Your task to perform on an android device: Go to Reddit.com Image 0: 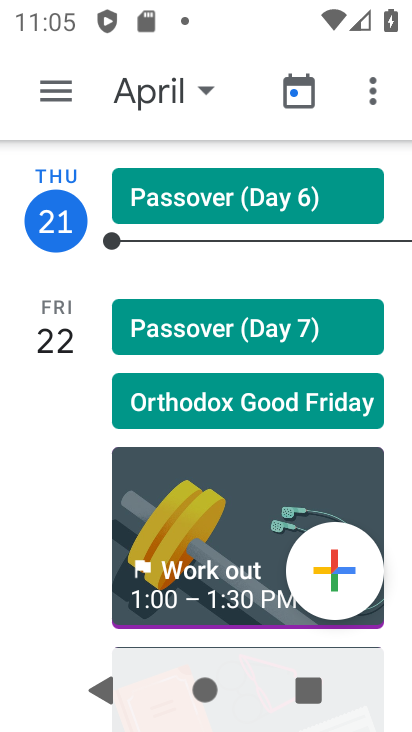
Step 0: press home button
Your task to perform on an android device: Go to Reddit.com Image 1: 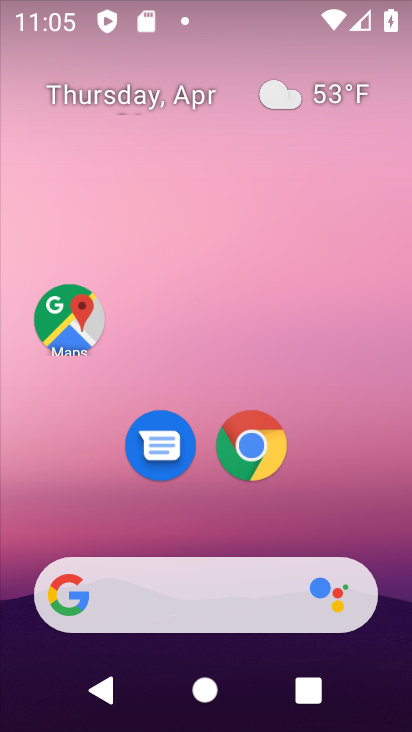
Step 1: drag from (149, 605) to (317, 70)
Your task to perform on an android device: Go to Reddit.com Image 2: 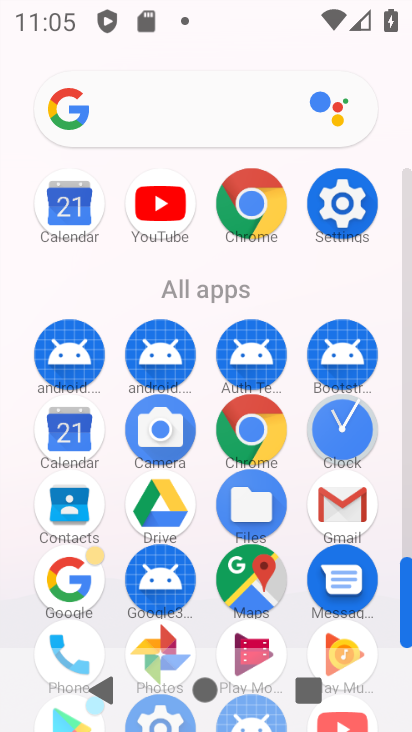
Step 2: click (263, 204)
Your task to perform on an android device: Go to Reddit.com Image 3: 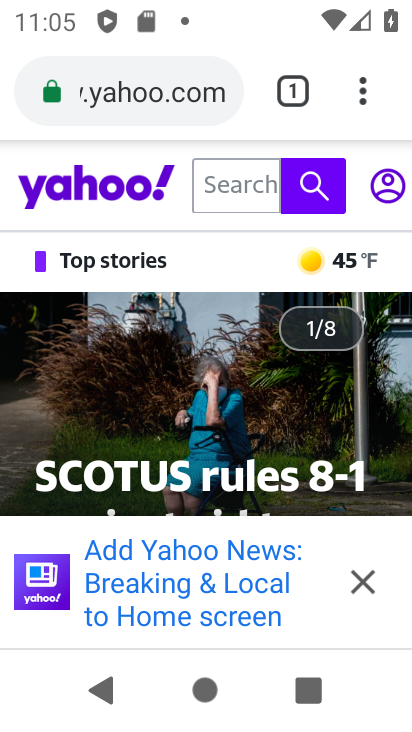
Step 3: click (350, 107)
Your task to perform on an android device: Go to Reddit.com Image 4: 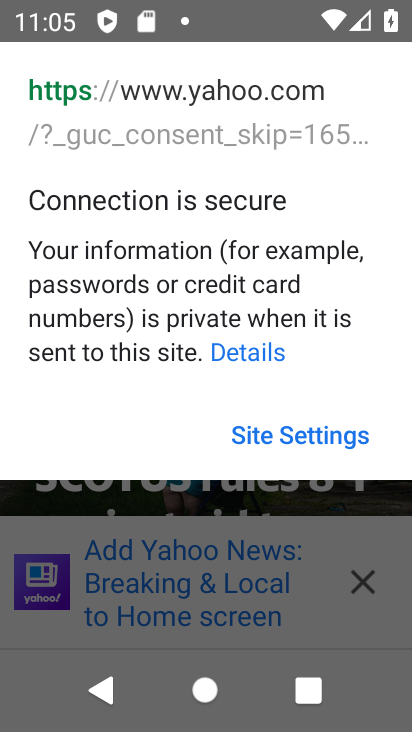
Step 4: press back button
Your task to perform on an android device: Go to Reddit.com Image 5: 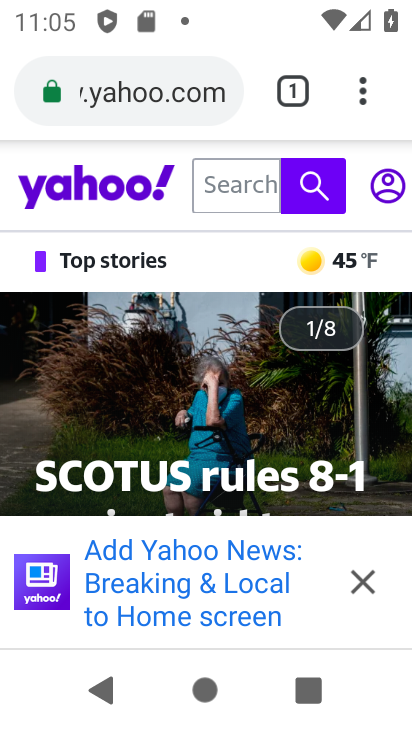
Step 5: click (361, 113)
Your task to perform on an android device: Go to Reddit.com Image 6: 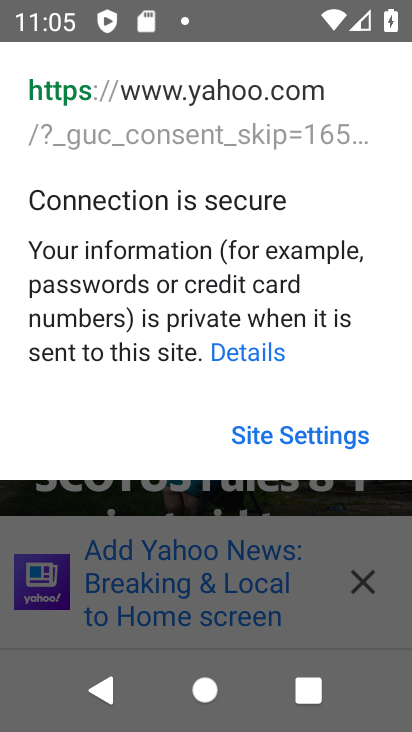
Step 6: press back button
Your task to perform on an android device: Go to Reddit.com Image 7: 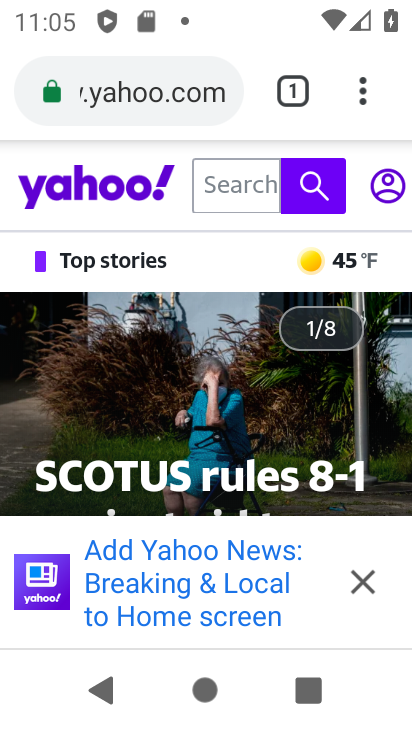
Step 7: click (353, 102)
Your task to perform on an android device: Go to Reddit.com Image 8: 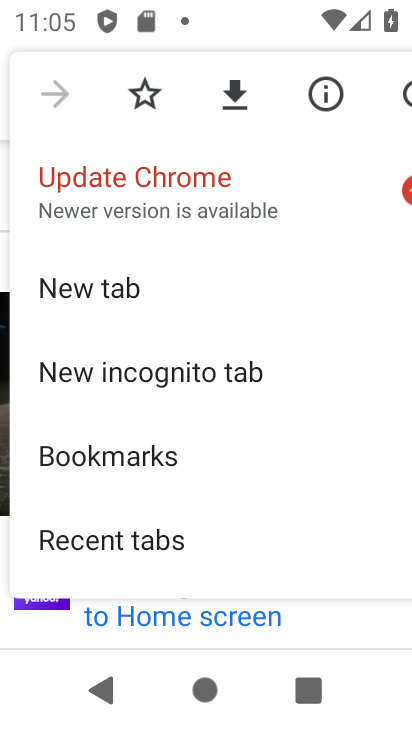
Step 8: click (135, 284)
Your task to perform on an android device: Go to Reddit.com Image 9: 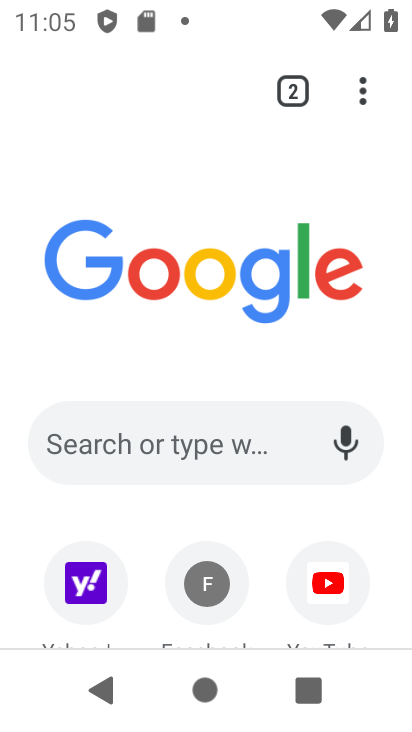
Step 9: drag from (139, 483) to (302, 116)
Your task to perform on an android device: Go to Reddit.com Image 10: 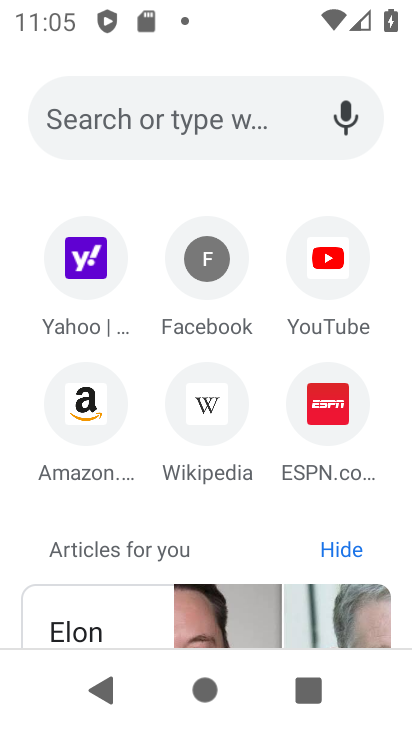
Step 10: click (160, 116)
Your task to perform on an android device: Go to Reddit.com Image 11: 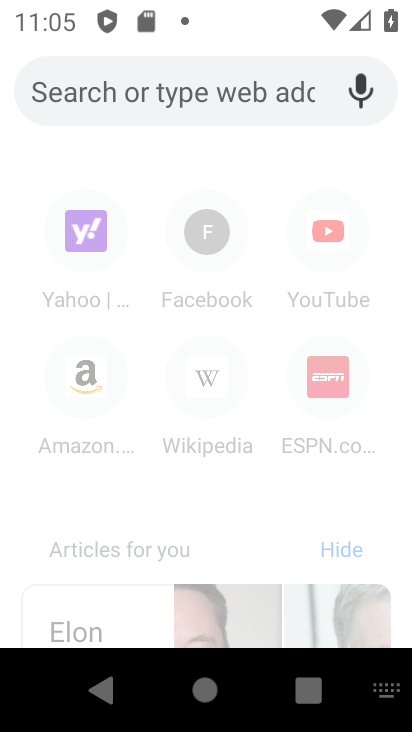
Step 11: type "reddit.com"
Your task to perform on an android device: Go to Reddit.com Image 12: 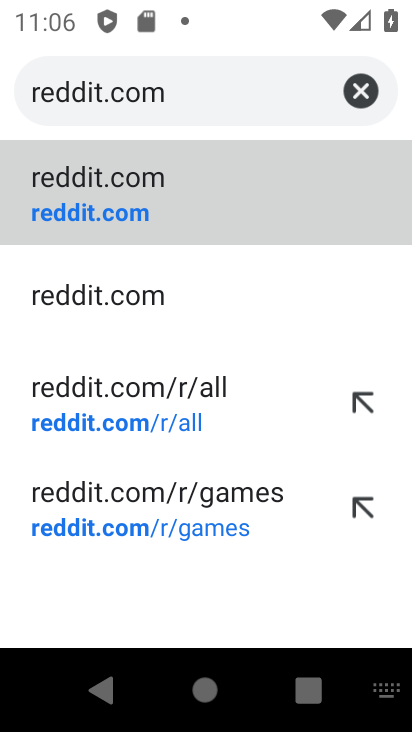
Step 12: click (93, 215)
Your task to perform on an android device: Go to Reddit.com Image 13: 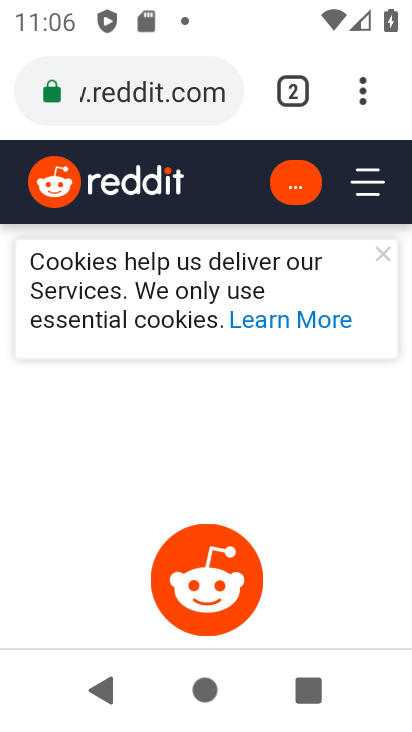
Step 13: task complete